Your task to perform on an android device: turn off picture-in-picture Image 0: 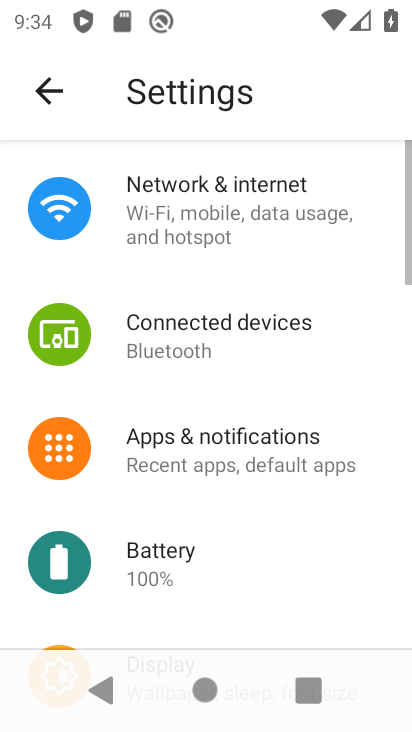
Step 0: click (248, 449)
Your task to perform on an android device: turn off picture-in-picture Image 1: 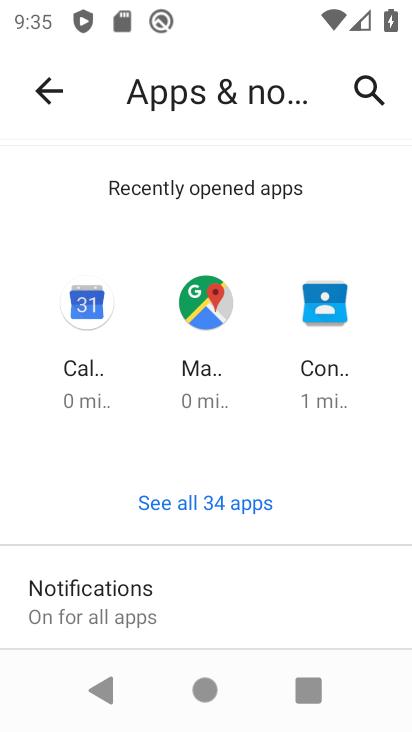
Step 1: drag from (223, 632) to (271, 91)
Your task to perform on an android device: turn off picture-in-picture Image 2: 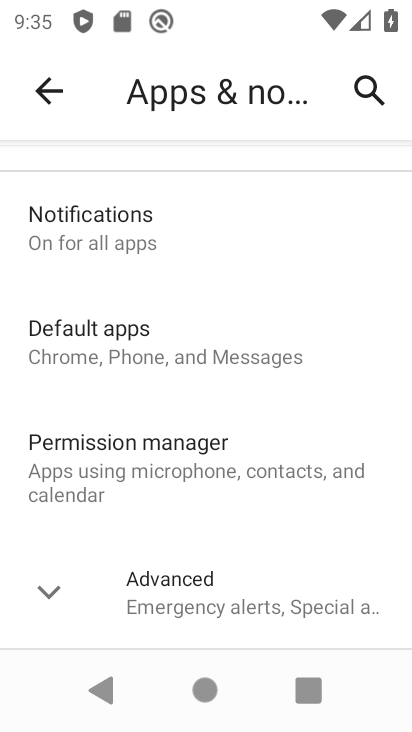
Step 2: click (228, 597)
Your task to perform on an android device: turn off picture-in-picture Image 3: 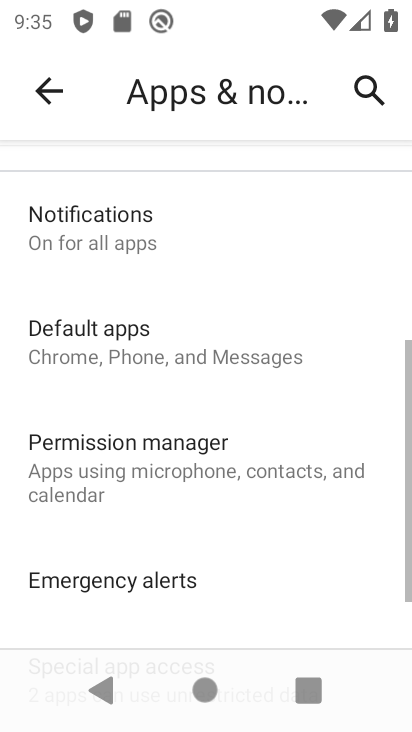
Step 3: drag from (217, 623) to (223, 177)
Your task to perform on an android device: turn off picture-in-picture Image 4: 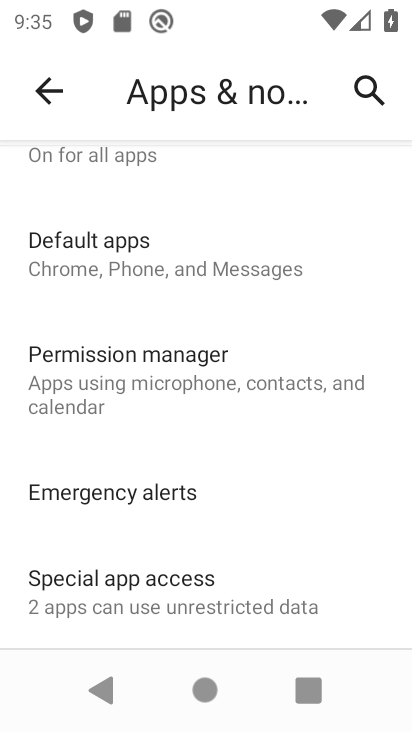
Step 4: click (171, 612)
Your task to perform on an android device: turn off picture-in-picture Image 5: 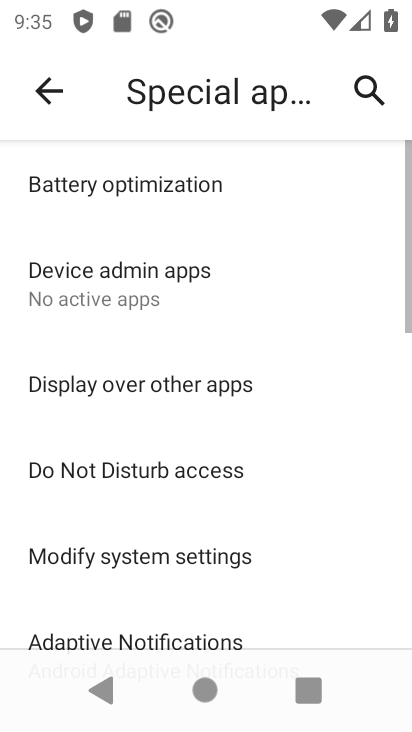
Step 5: drag from (171, 612) to (270, 115)
Your task to perform on an android device: turn off picture-in-picture Image 6: 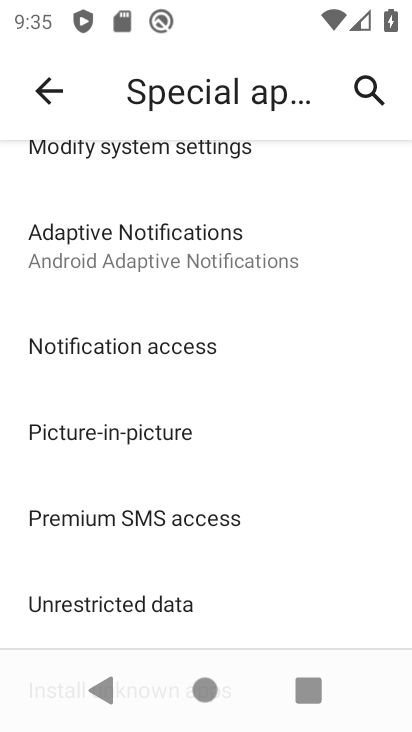
Step 6: click (207, 429)
Your task to perform on an android device: turn off picture-in-picture Image 7: 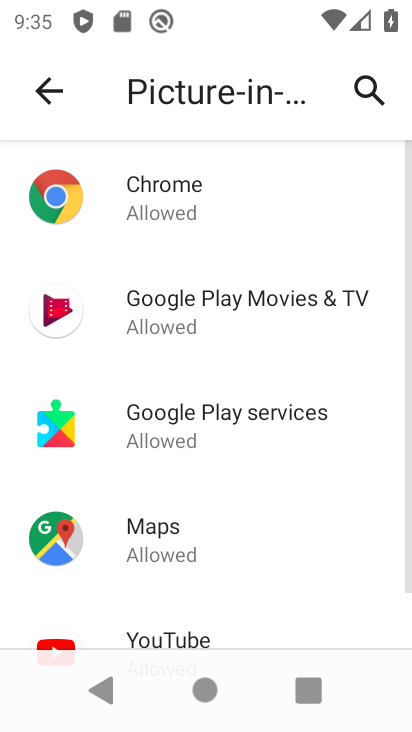
Step 7: click (248, 204)
Your task to perform on an android device: turn off picture-in-picture Image 8: 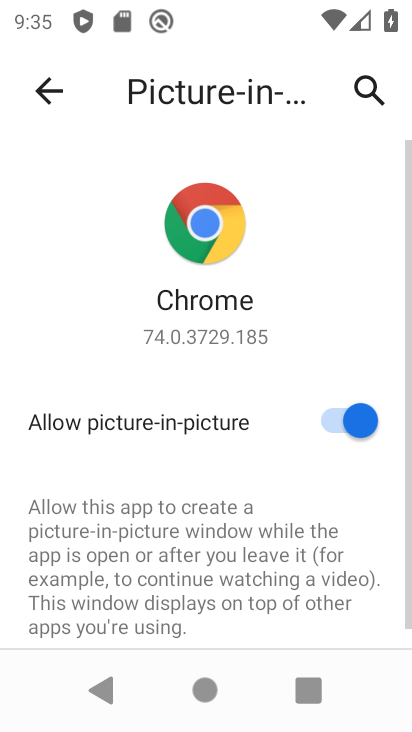
Step 8: click (325, 412)
Your task to perform on an android device: turn off picture-in-picture Image 9: 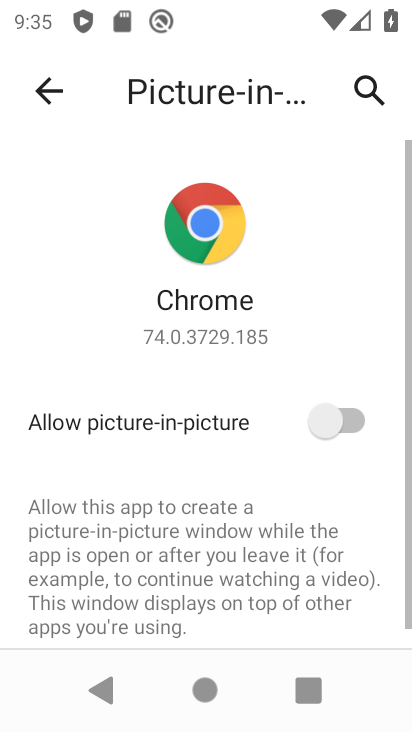
Step 9: press back button
Your task to perform on an android device: turn off picture-in-picture Image 10: 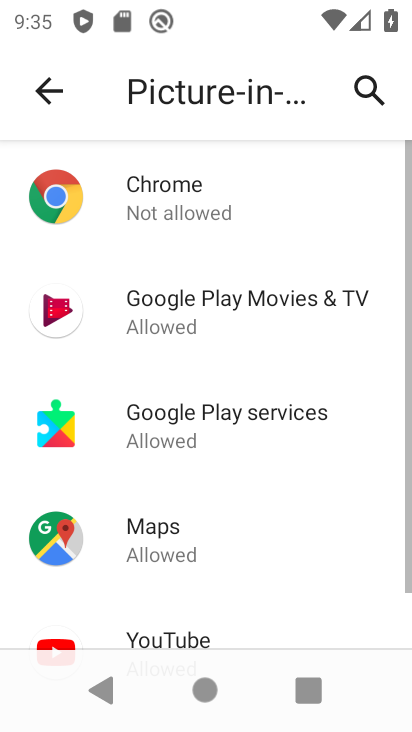
Step 10: click (194, 288)
Your task to perform on an android device: turn off picture-in-picture Image 11: 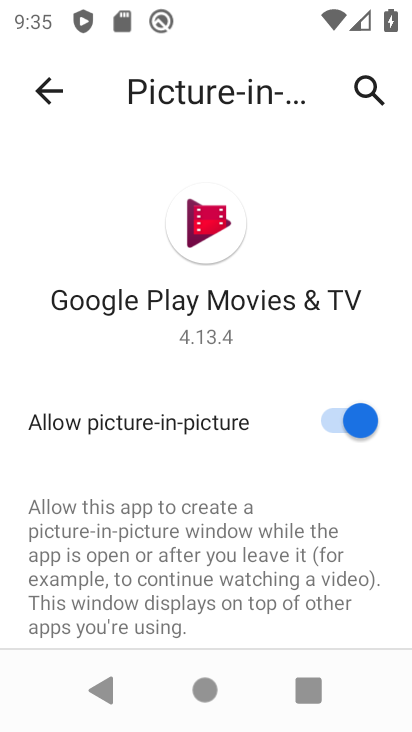
Step 11: click (340, 419)
Your task to perform on an android device: turn off picture-in-picture Image 12: 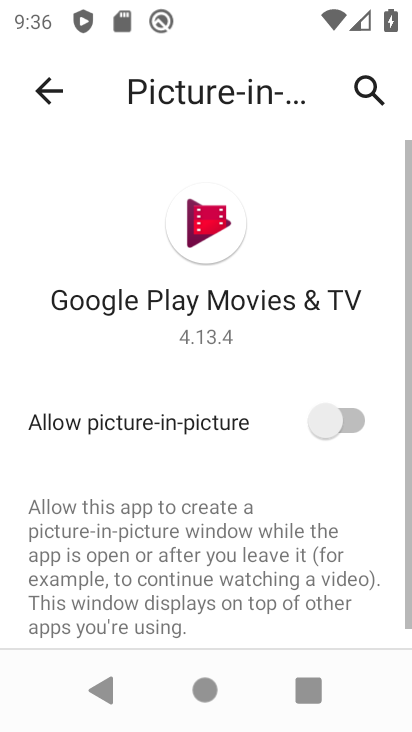
Step 12: press back button
Your task to perform on an android device: turn off picture-in-picture Image 13: 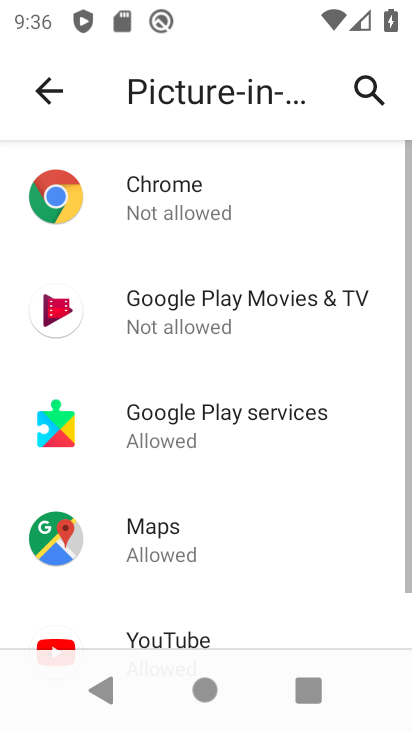
Step 13: click (235, 420)
Your task to perform on an android device: turn off picture-in-picture Image 14: 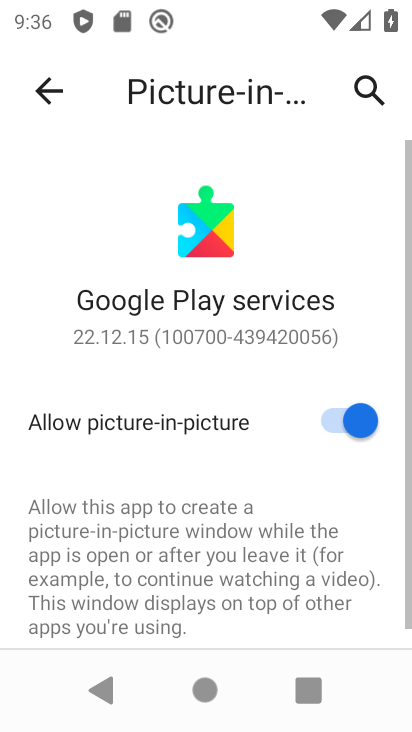
Step 14: click (335, 416)
Your task to perform on an android device: turn off picture-in-picture Image 15: 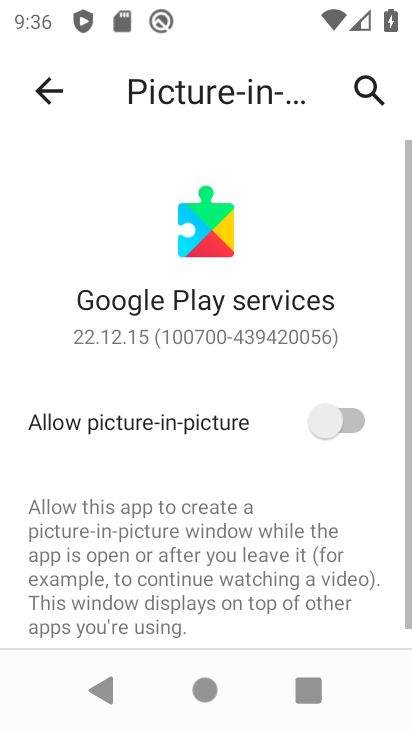
Step 15: task complete